Your task to perform on an android device: set the timer Image 0: 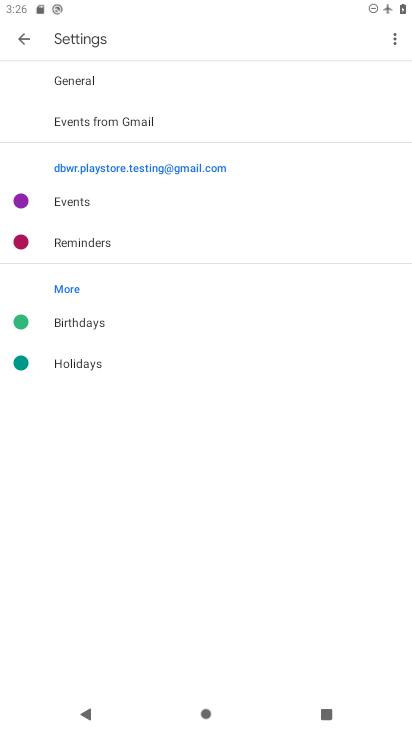
Step 0: drag from (166, 660) to (164, 309)
Your task to perform on an android device: set the timer Image 1: 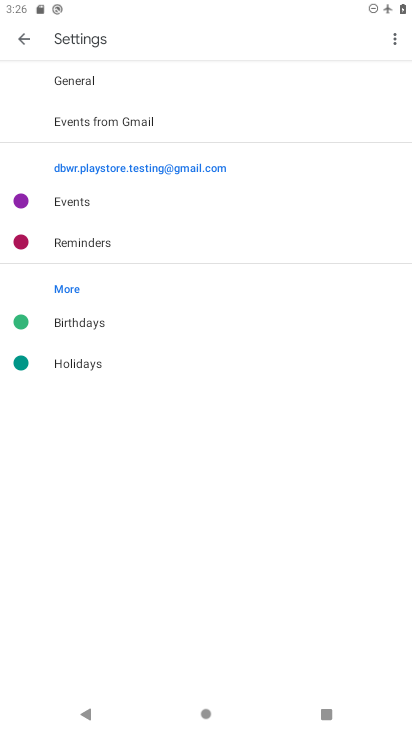
Step 1: press home button
Your task to perform on an android device: set the timer Image 2: 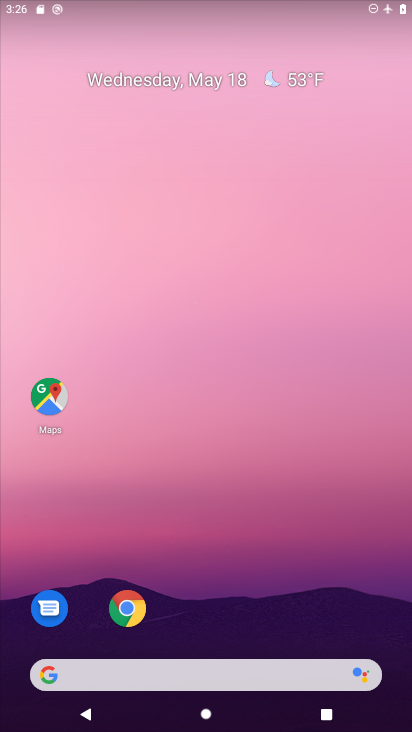
Step 2: drag from (186, 579) to (217, 349)
Your task to perform on an android device: set the timer Image 3: 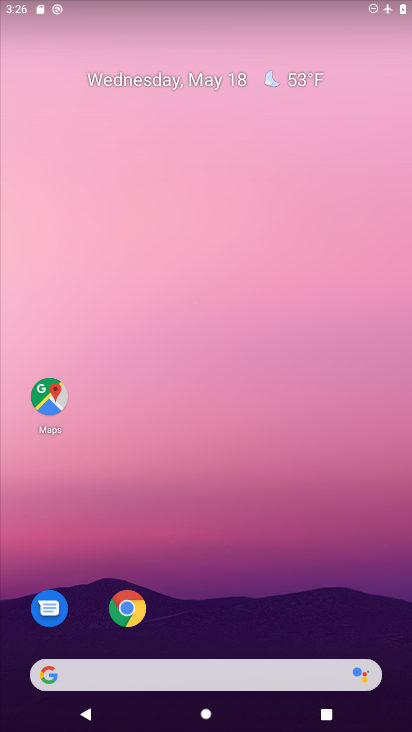
Step 3: drag from (185, 641) to (185, 252)
Your task to perform on an android device: set the timer Image 4: 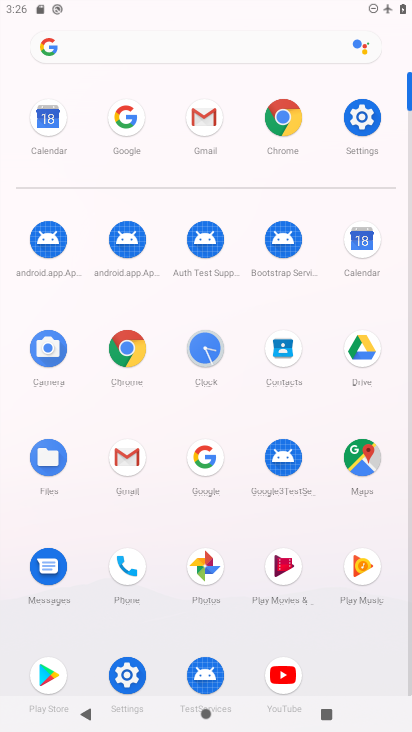
Step 4: click (201, 354)
Your task to perform on an android device: set the timer Image 5: 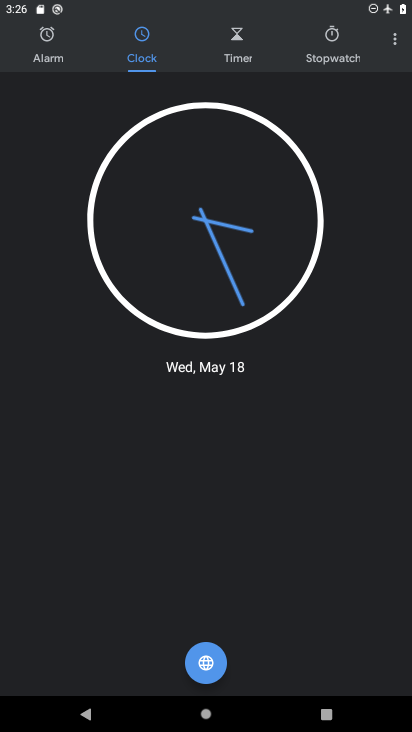
Step 5: click (239, 39)
Your task to perform on an android device: set the timer Image 6: 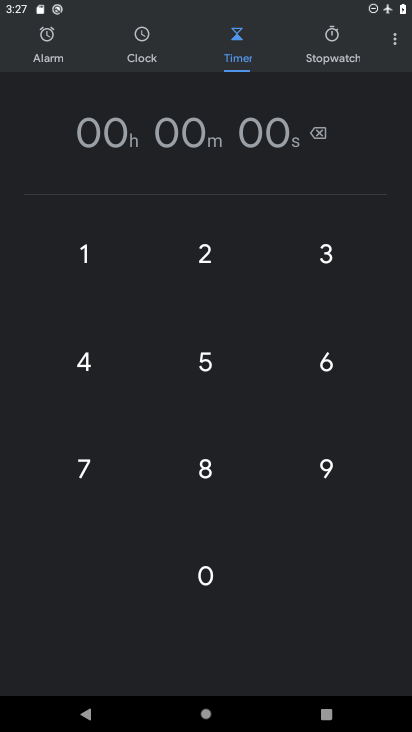
Step 6: click (212, 588)
Your task to perform on an android device: set the timer Image 7: 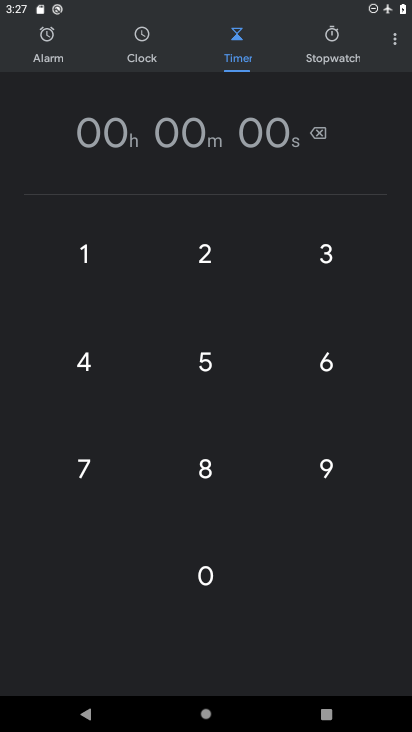
Step 7: click (92, 365)
Your task to perform on an android device: set the timer Image 8: 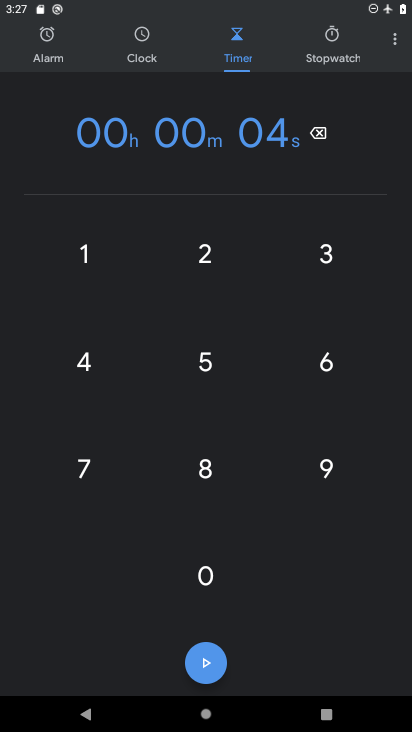
Step 8: click (203, 587)
Your task to perform on an android device: set the timer Image 9: 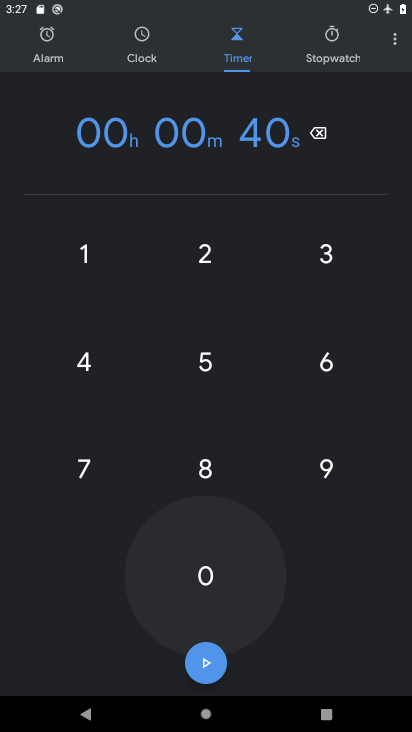
Step 9: click (215, 359)
Your task to perform on an android device: set the timer Image 10: 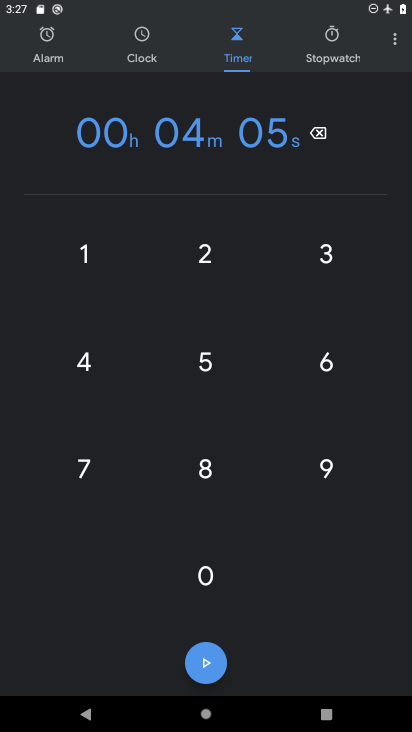
Step 10: click (195, 665)
Your task to perform on an android device: set the timer Image 11: 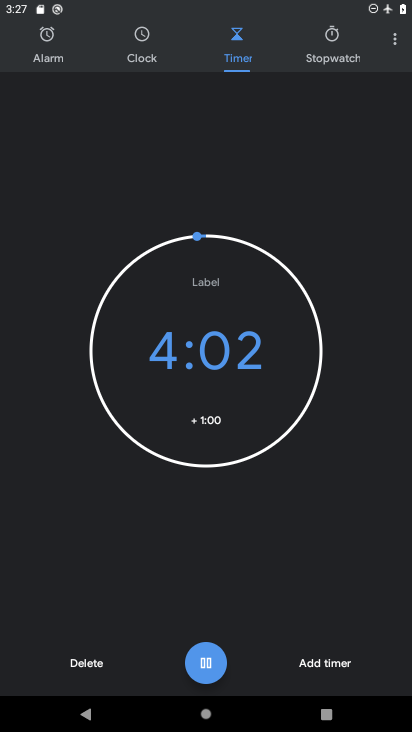
Step 11: task complete